Your task to perform on an android device: Open Yahoo.com Image 0: 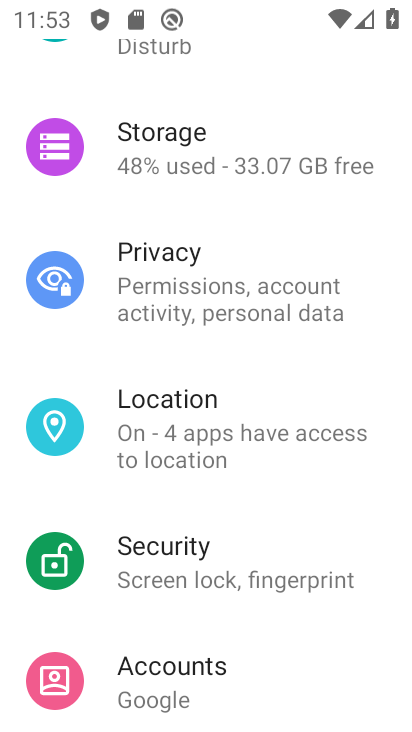
Step 0: drag from (217, 572) to (222, 338)
Your task to perform on an android device: Open Yahoo.com Image 1: 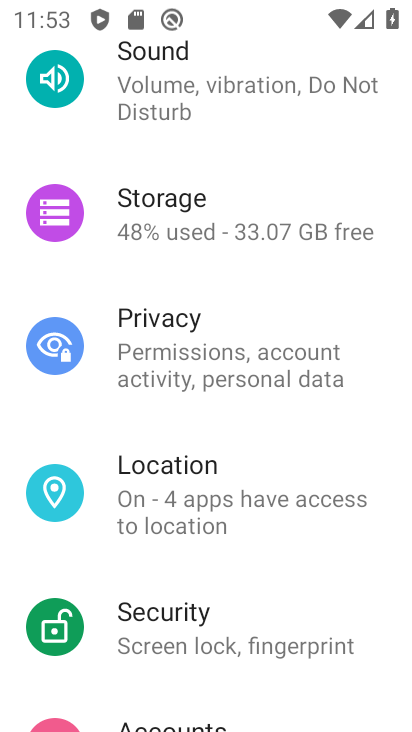
Step 1: press home button
Your task to perform on an android device: Open Yahoo.com Image 2: 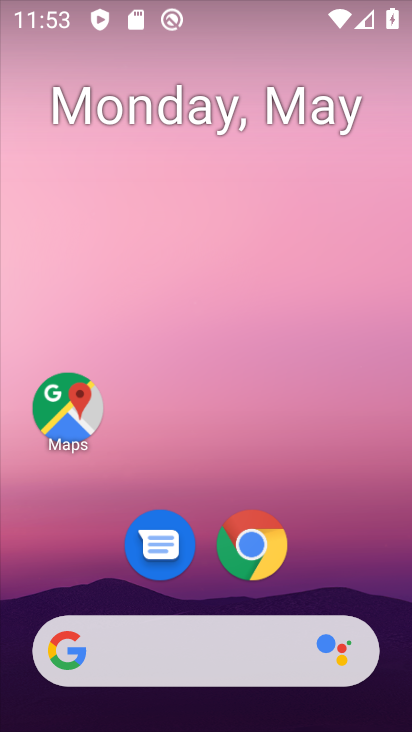
Step 2: click (248, 541)
Your task to perform on an android device: Open Yahoo.com Image 3: 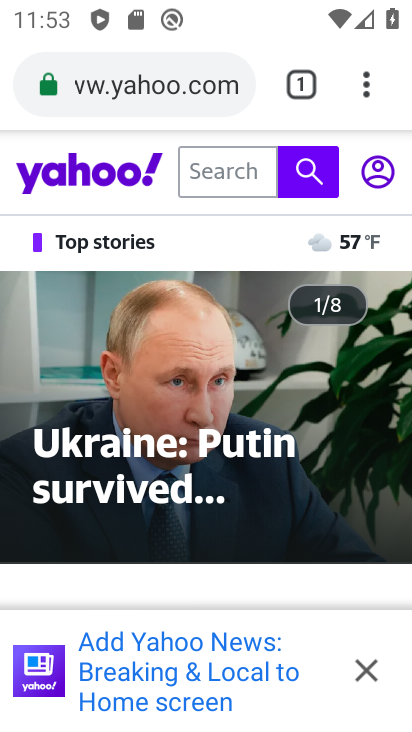
Step 3: task complete